Your task to perform on an android device: Go to ESPN.com Image 0: 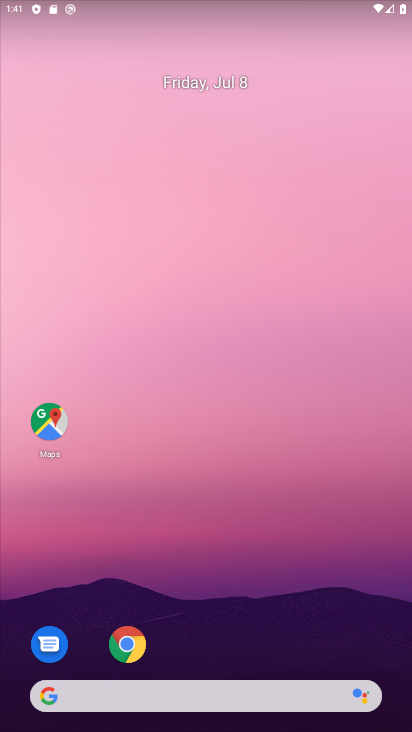
Step 0: drag from (198, 639) to (223, 119)
Your task to perform on an android device: Go to ESPN.com Image 1: 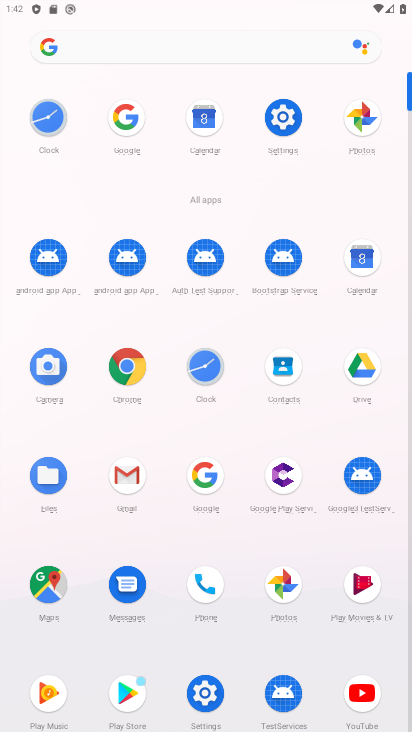
Step 1: click (127, 119)
Your task to perform on an android device: Go to ESPN.com Image 2: 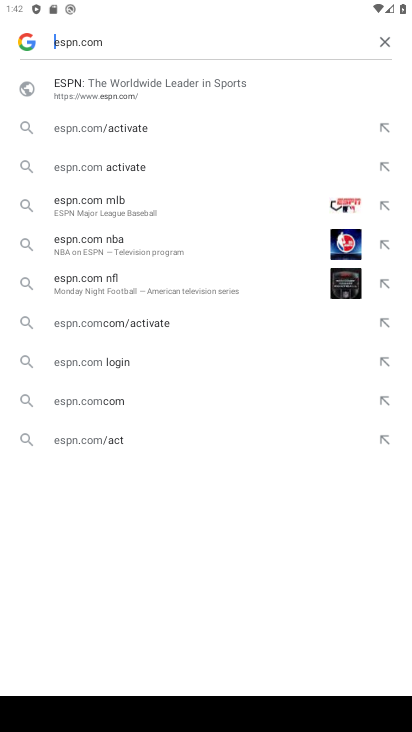
Step 2: click (256, 44)
Your task to perform on an android device: Go to ESPN.com Image 3: 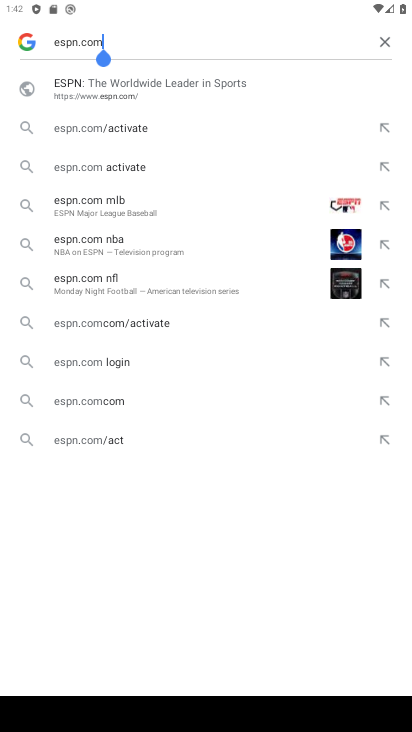
Step 3: click (173, 87)
Your task to perform on an android device: Go to ESPN.com Image 4: 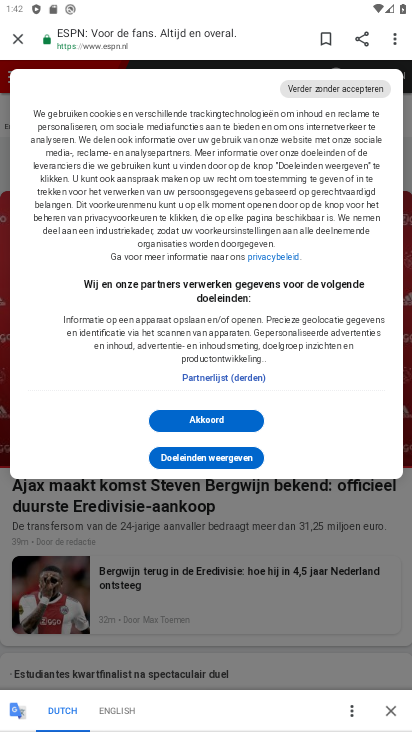
Step 4: task complete